Your task to perform on an android device: add a contact Image 0: 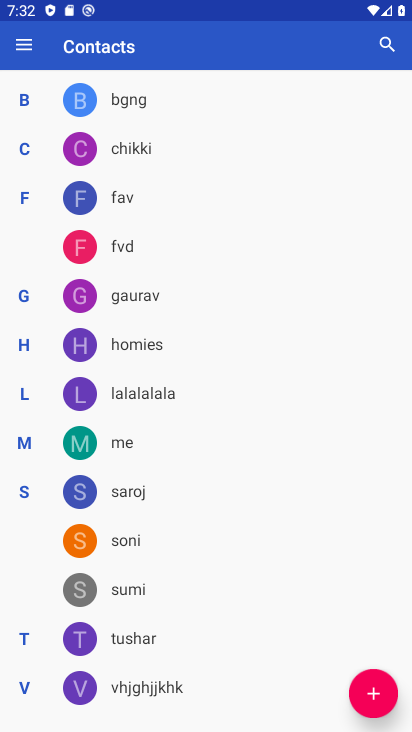
Step 0: press home button
Your task to perform on an android device: add a contact Image 1: 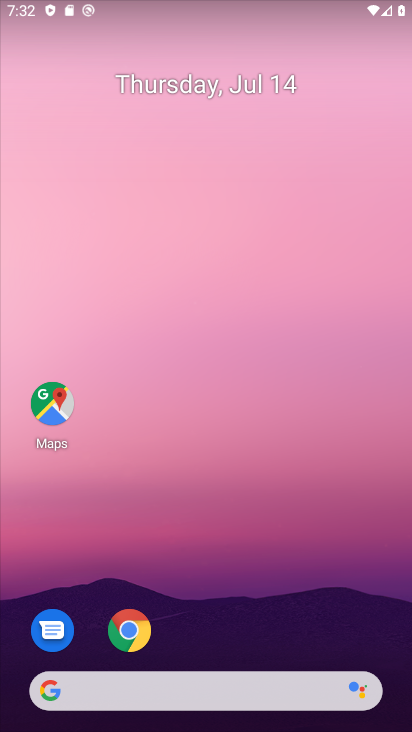
Step 1: drag from (264, 576) to (274, 33)
Your task to perform on an android device: add a contact Image 2: 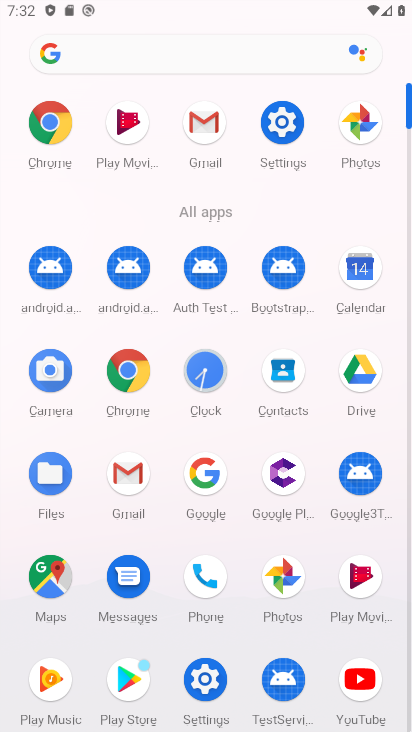
Step 2: click (201, 565)
Your task to perform on an android device: add a contact Image 3: 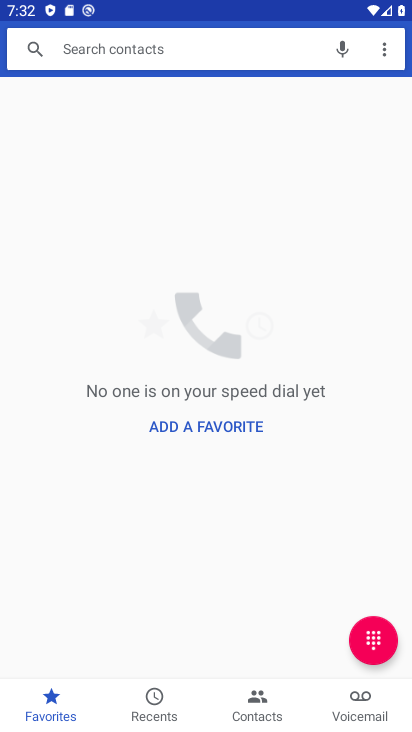
Step 3: click (205, 419)
Your task to perform on an android device: add a contact Image 4: 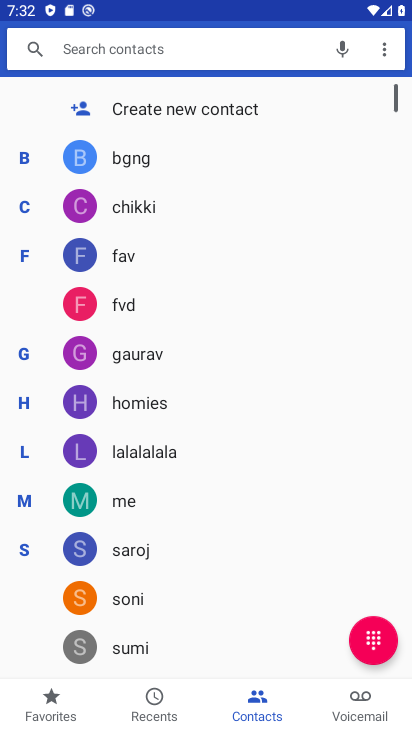
Step 4: click (214, 105)
Your task to perform on an android device: add a contact Image 5: 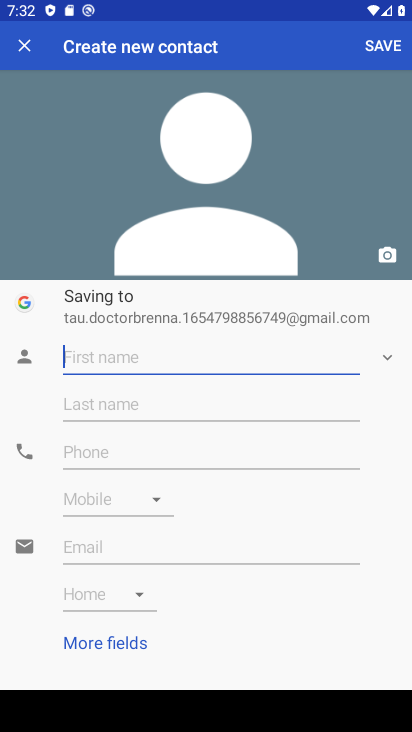
Step 5: click (178, 353)
Your task to perform on an android device: add a contact Image 6: 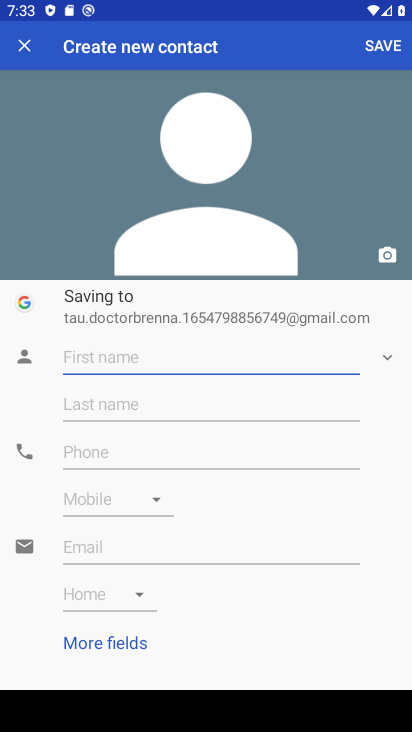
Step 6: type "naresh "
Your task to perform on an android device: add a contact Image 7: 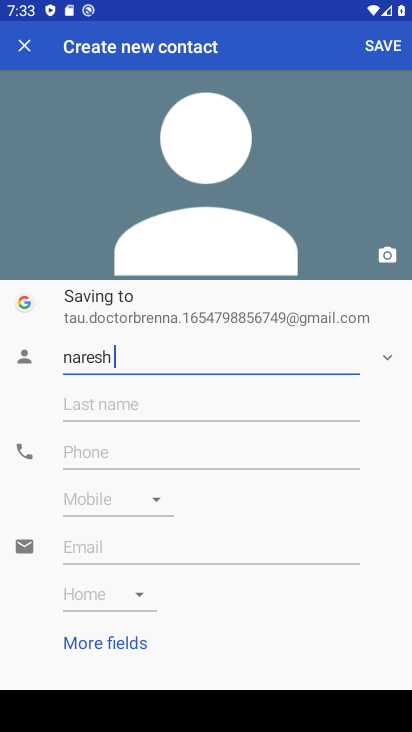
Step 7: click (142, 437)
Your task to perform on an android device: add a contact Image 8: 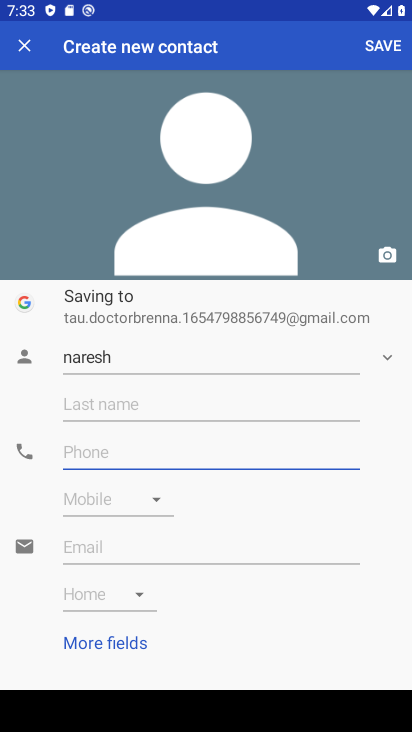
Step 8: type "1234567890-"
Your task to perform on an android device: add a contact Image 9: 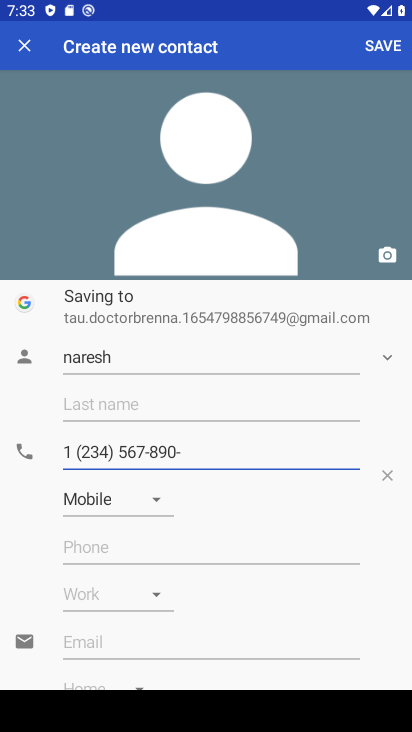
Step 9: click (380, 39)
Your task to perform on an android device: add a contact Image 10: 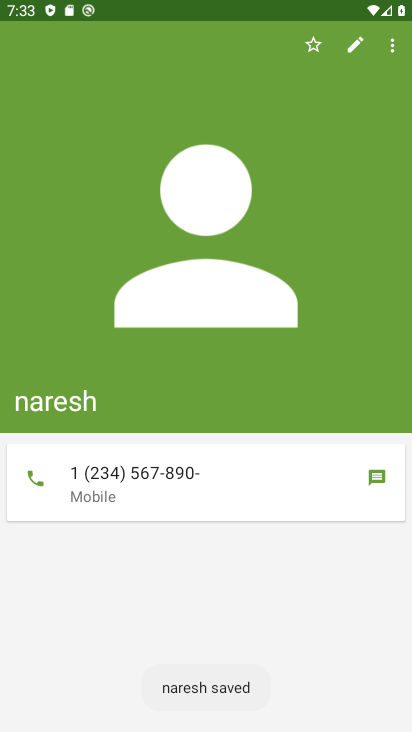
Step 10: task complete